Your task to perform on an android device: toggle location history Image 0: 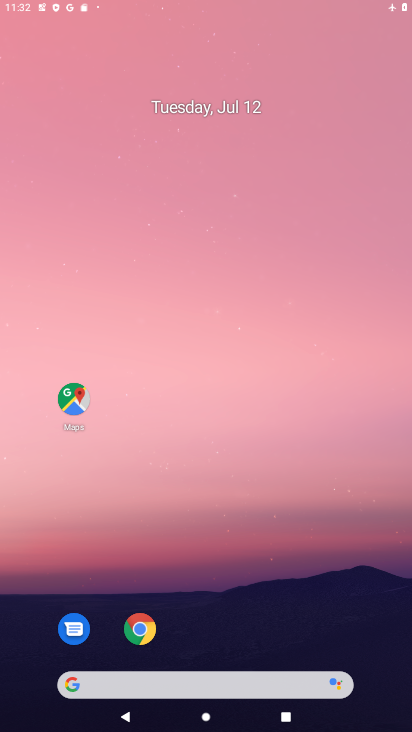
Step 0: drag from (201, 624) to (173, 227)
Your task to perform on an android device: toggle location history Image 1: 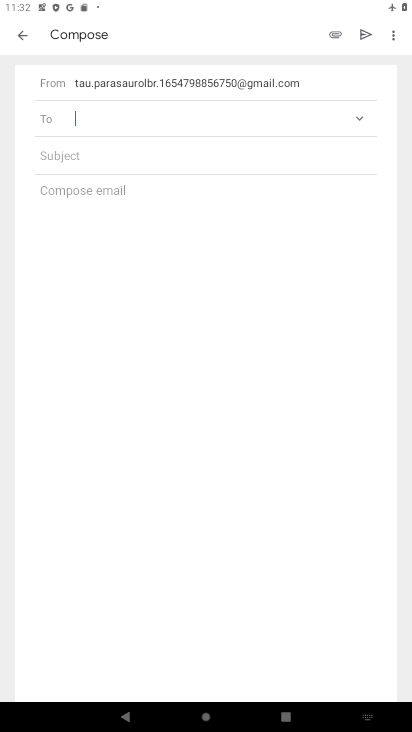
Step 1: click (16, 26)
Your task to perform on an android device: toggle location history Image 2: 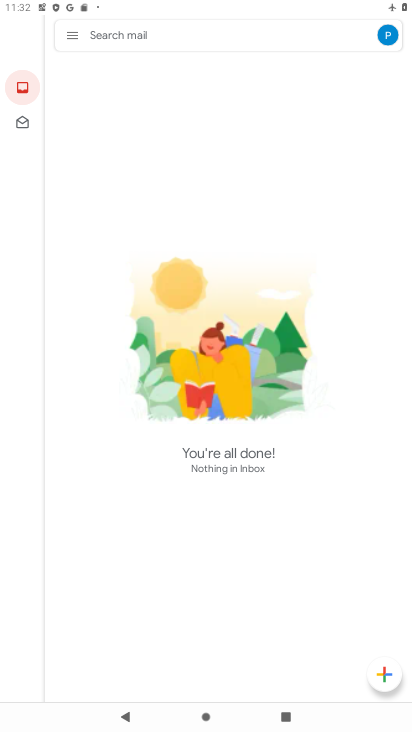
Step 2: press home button
Your task to perform on an android device: toggle location history Image 3: 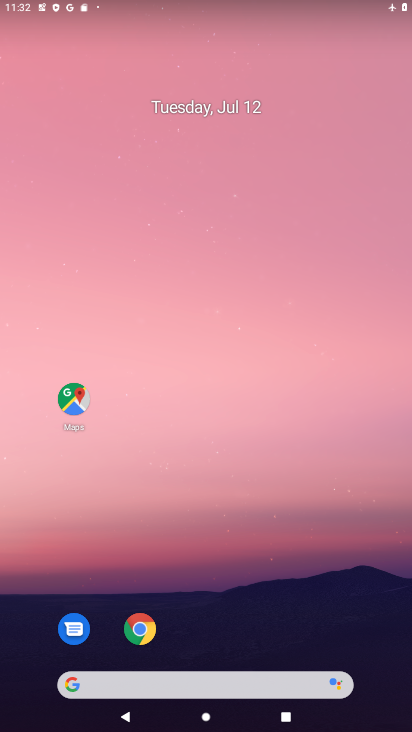
Step 3: drag from (206, 592) to (210, 247)
Your task to perform on an android device: toggle location history Image 4: 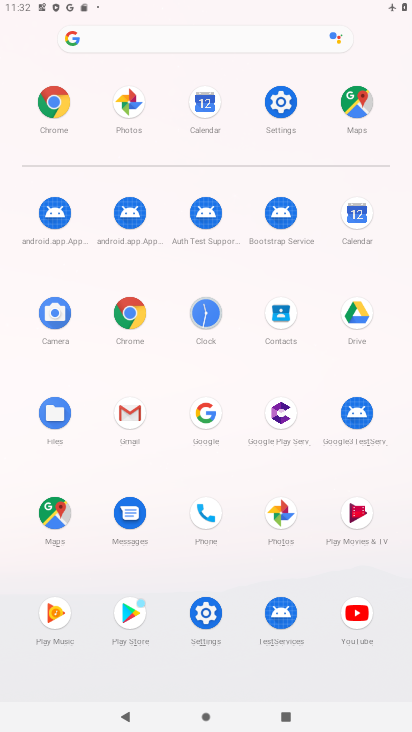
Step 4: click (273, 106)
Your task to perform on an android device: toggle location history Image 5: 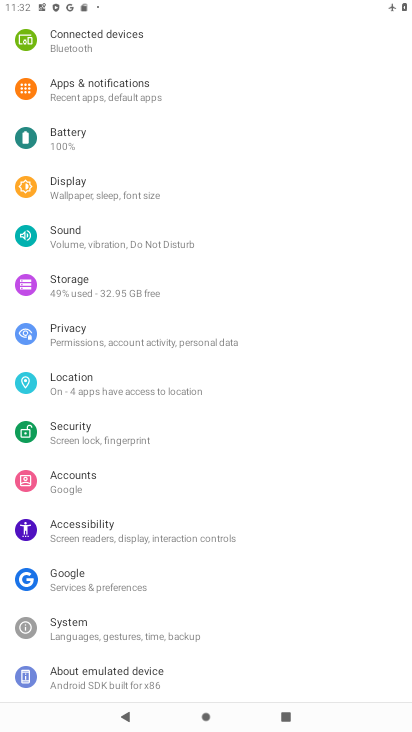
Step 5: click (93, 376)
Your task to perform on an android device: toggle location history Image 6: 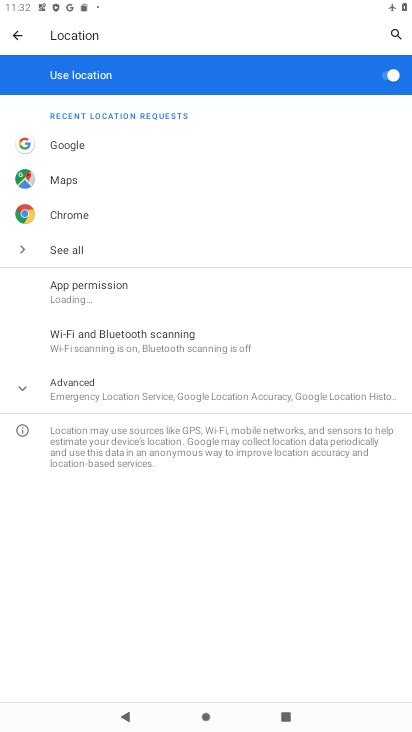
Step 6: click (125, 388)
Your task to perform on an android device: toggle location history Image 7: 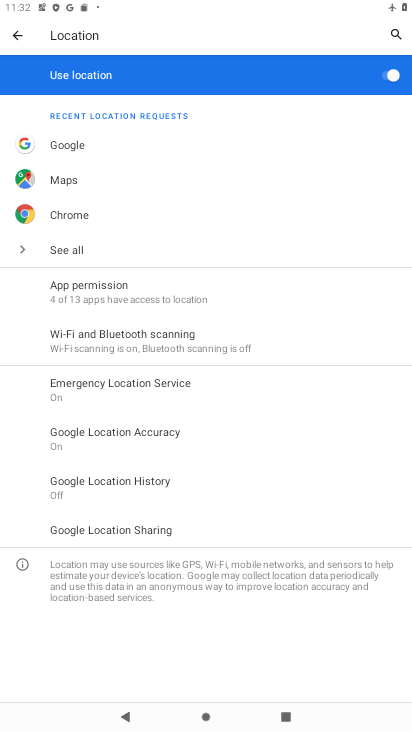
Step 7: click (138, 484)
Your task to perform on an android device: toggle location history Image 8: 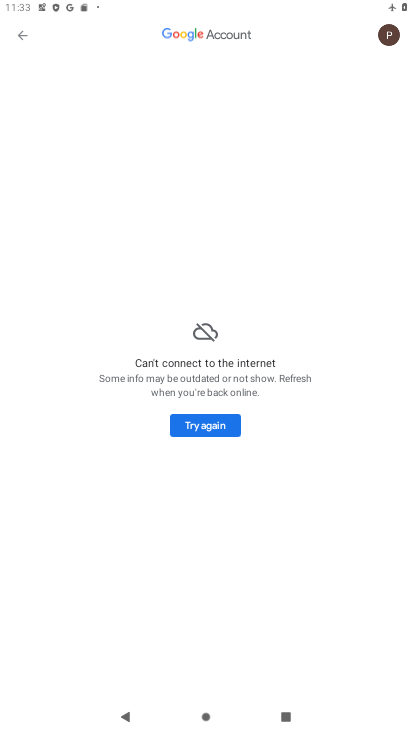
Step 8: task complete